Your task to perform on an android device: find which apps use the phone's location Image 0: 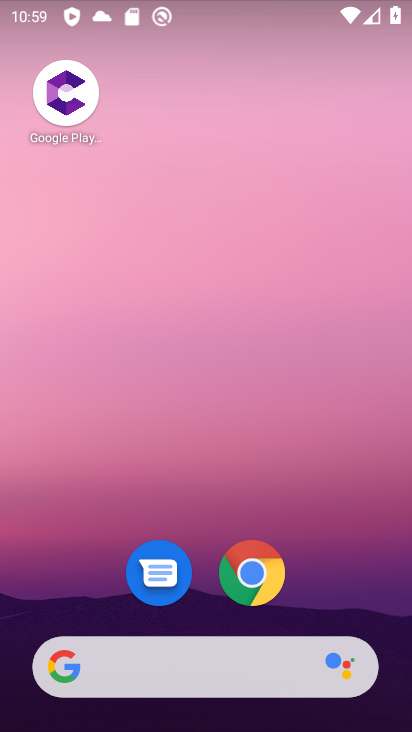
Step 0: drag from (314, 527) to (324, 78)
Your task to perform on an android device: find which apps use the phone's location Image 1: 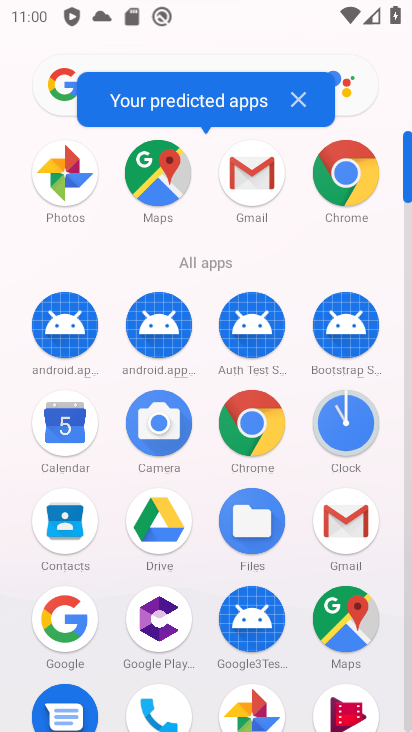
Step 1: drag from (300, 478) to (349, 191)
Your task to perform on an android device: find which apps use the phone's location Image 2: 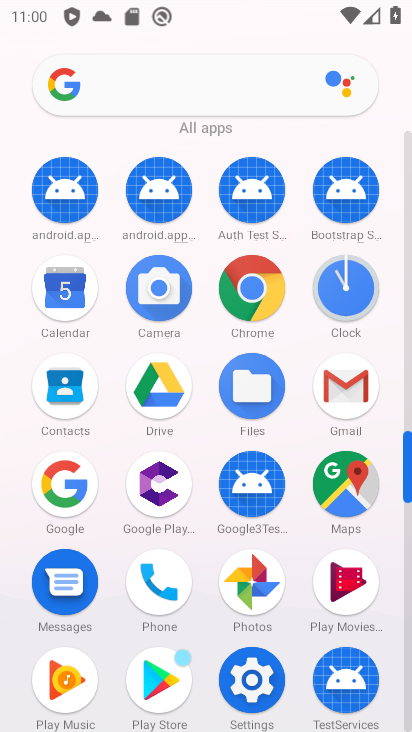
Step 2: drag from (249, 664) to (81, 184)
Your task to perform on an android device: find which apps use the phone's location Image 3: 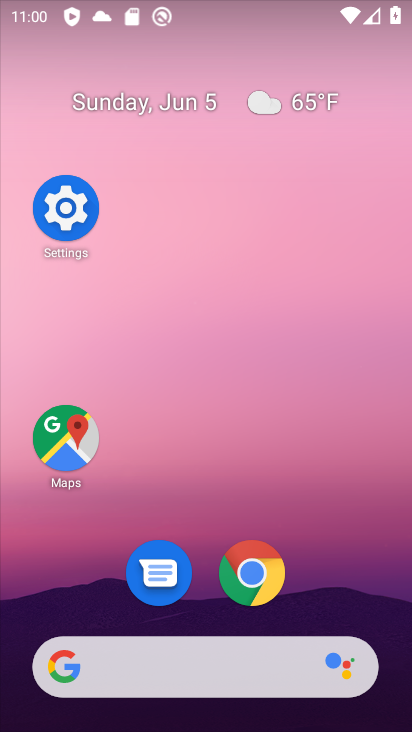
Step 3: click (81, 184)
Your task to perform on an android device: find which apps use the phone's location Image 4: 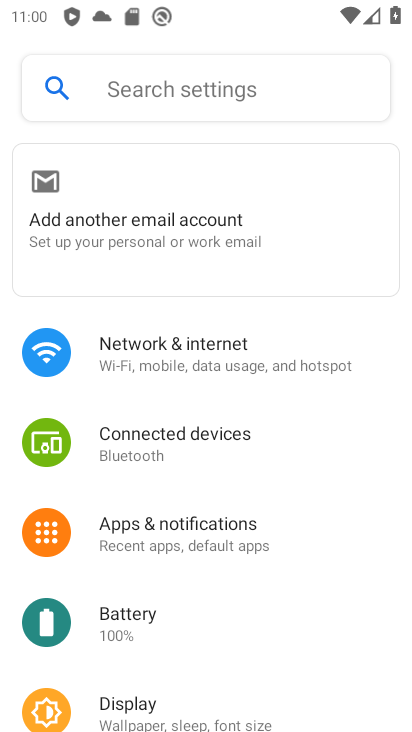
Step 4: drag from (229, 584) to (249, 190)
Your task to perform on an android device: find which apps use the phone's location Image 5: 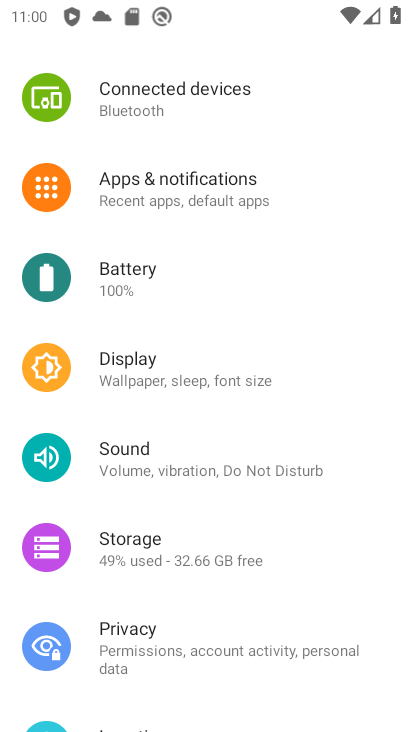
Step 5: drag from (231, 533) to (222, 181)
Your task to perform on an android device: find which apps use the phone's location Image 6: 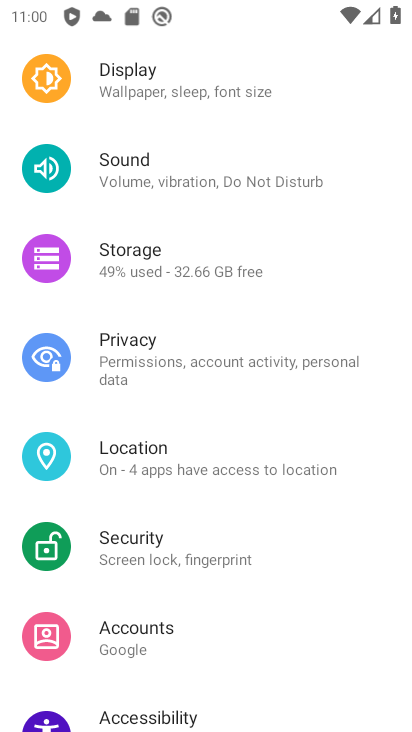
Step 6: click (160, 475)
Your task to perform on an android device: find which apps use the phone's location Image 7: 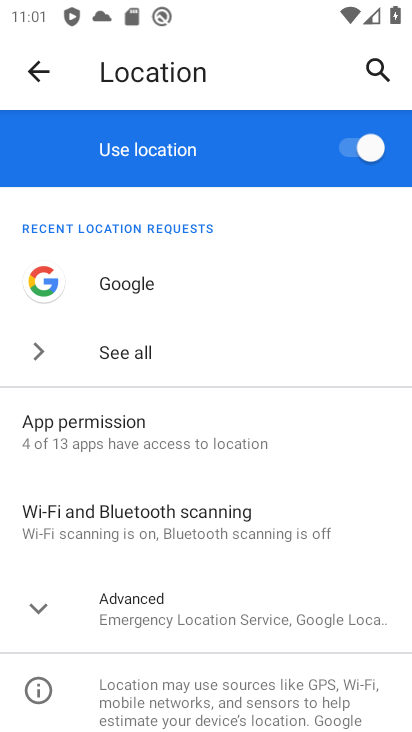
Step 7: task complete